Your task to perform on an android device: What's the weather going to be tomorrow? Image 0: 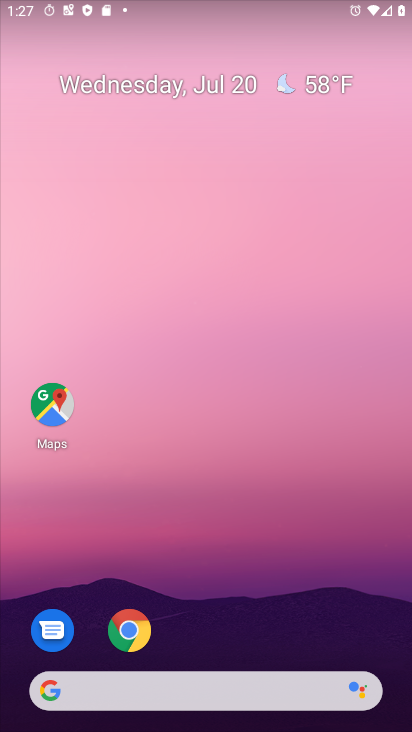
Step 0: press home button
Your task to perform on an android device: What's the weather going to be tomorrow? Image 1: 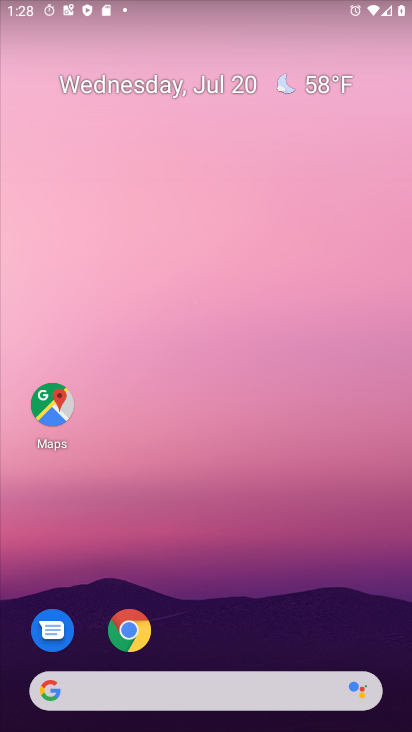
Step 1: click (194, 693)
Your task to perform on an android device: What's the weather going to be tomorrow? Image 2: 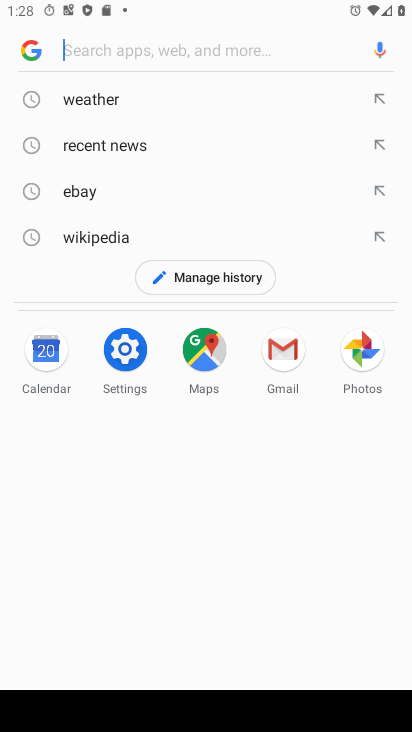
Step 2: click (101, 100)
Your task to perform on an android device: What's the weather going to be tomorrow? Image 3: 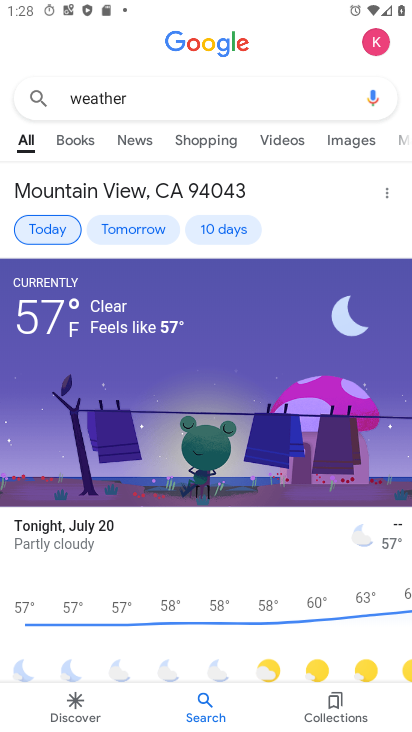
Step 3: click (145, 231)
Your task to perform on an android device: What's the weather going to be tomorrow? Image 4: 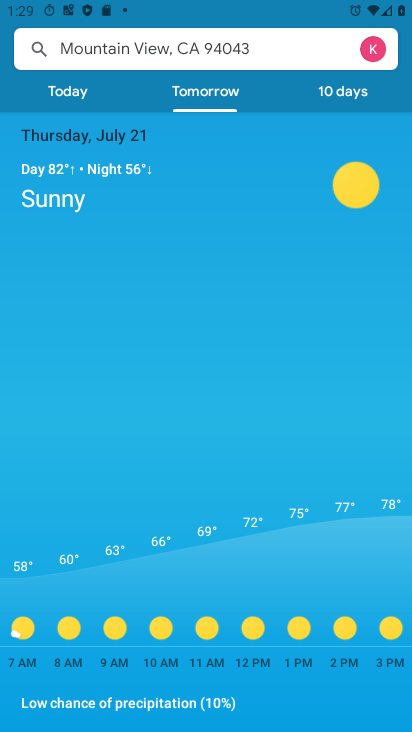
Step 4: task complete